Your task to perform on an android device: check data usage Image 0: 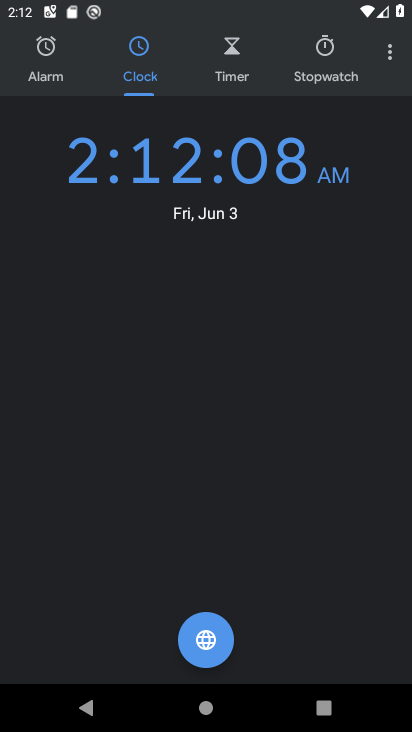
Step 0: press home button
Your task to perform on an android device: check data usage Image 1: 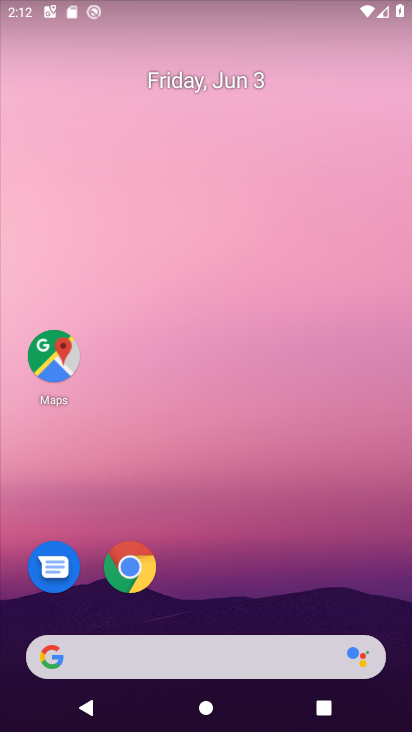
Step 1: drag from (205, 527) to (194, 198)
Your task to perform on an android device: check data usage Image 2: 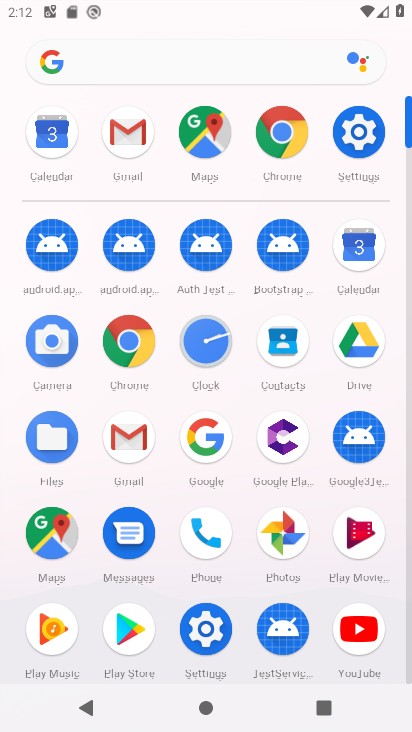
Step 2: click (350, 132)
Your task to perform on an android device: check data usage Image 3: 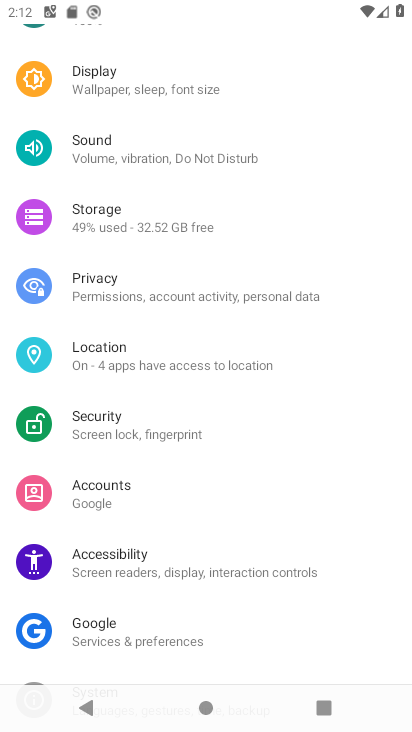
Step 3: drag from (180, 117) to (155, 563)
Your task to perform on an android device: check data usage Image 4: 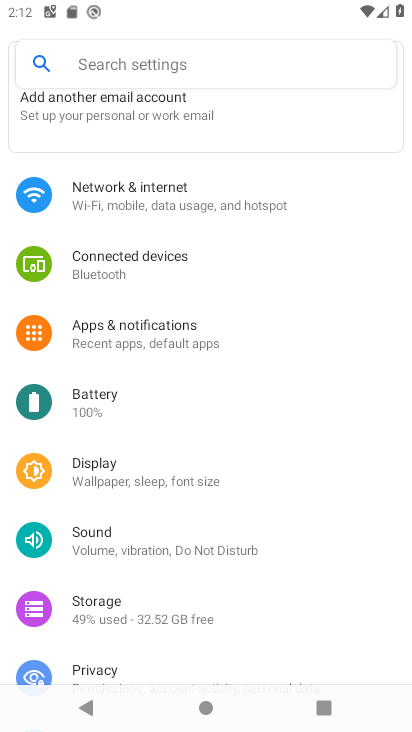
Step 4: click (172, 199)
Your task to perform on an android device: check data usage Image 5: 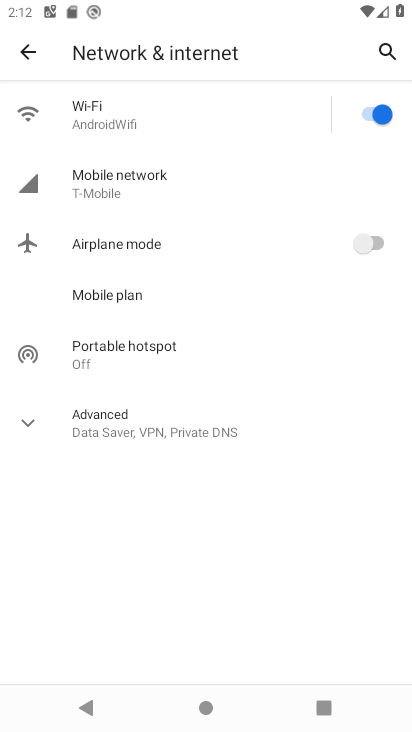
Step 5: click (175, 180)
Your task to perform on an android device: check data usage Image 6: 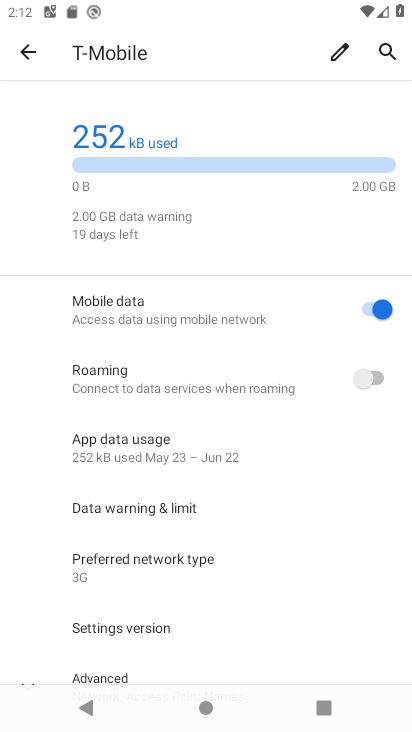
Step 6: task complete